Your task to perform on an android device: toggle improve location accuracy Image 0: 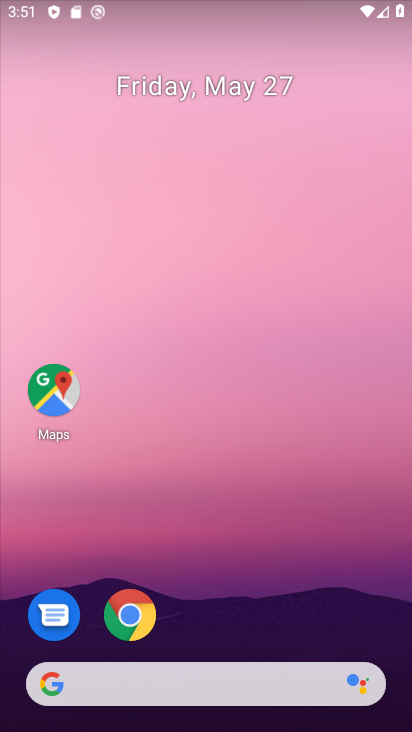
Step 0: drag from (163, 636) to (286, 191)
Your task to perform on an android device: toggle improve location accuracy Image 1: 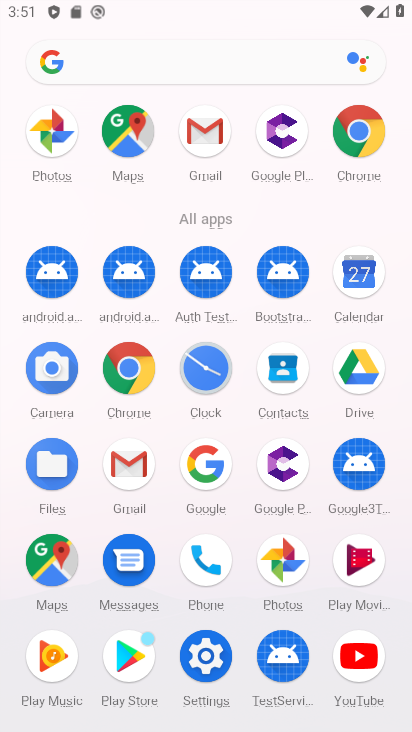
Step 1: drag from (191, 599) to (268, 378)
Your task to perform on an android device: toggle improve location accuracy Image 2: 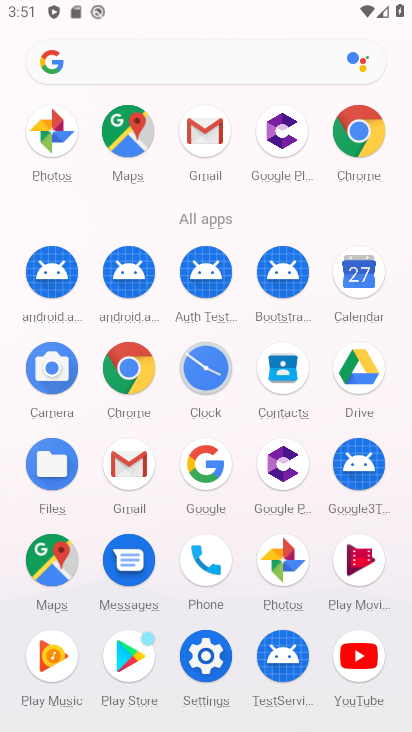
Step 2: click (217, 653)
Your task to perform on an android device: toggle improve location accuracy Image 3: 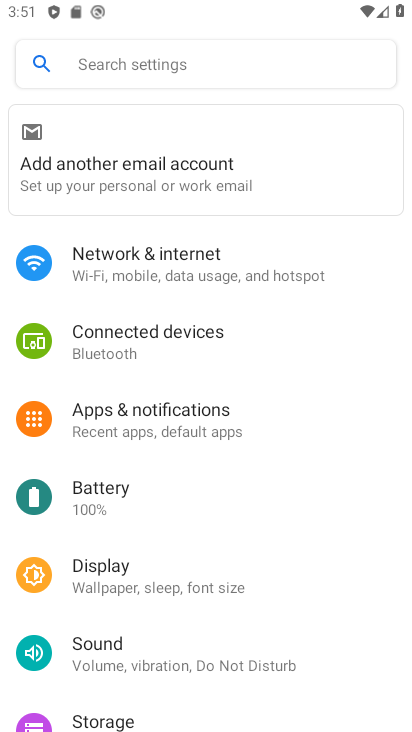
Step 3: drag from (159, 635) to (302, 338)
Your task to perform on an android device: toggle improve location accuracy Image 4: 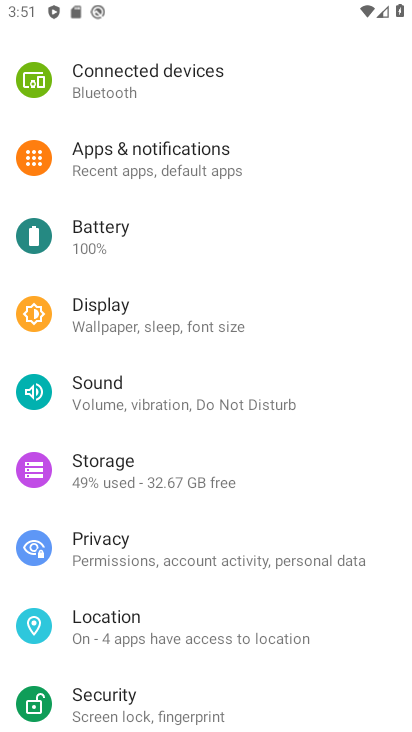
Step 4: click (146, 634)
Your task to perform on an android device: toggle improve location accuracy Image 5: 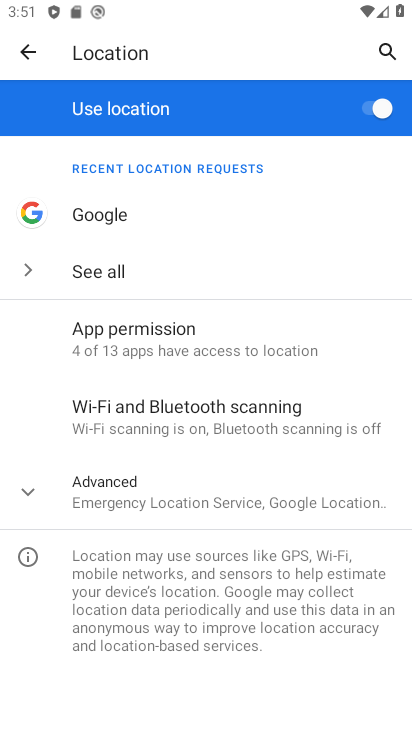
Step 5: click (174, 495)
Your task to perform on an android device: toggle improve location accuracy Image 6: 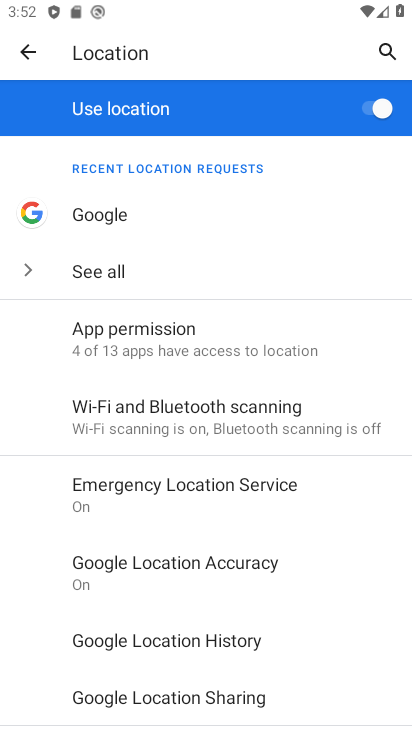
Step 6: click (274, 582)
Your task to perform on an android device: toggle improve location accuracy Image 7: 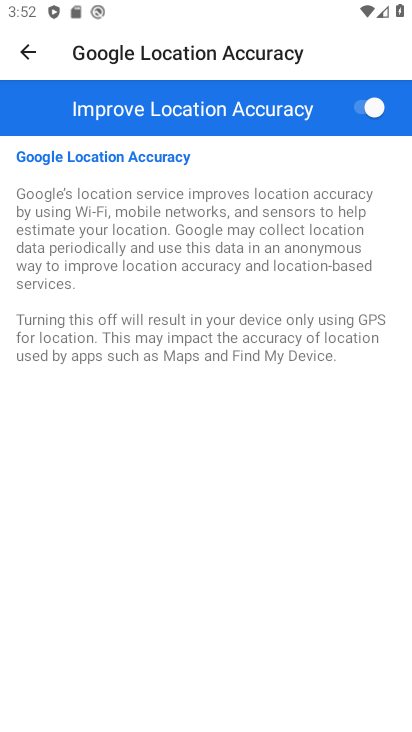
Step 7: click (371, 108)
Your task to perform on an android device: toggle improve location accuracy Image 8: 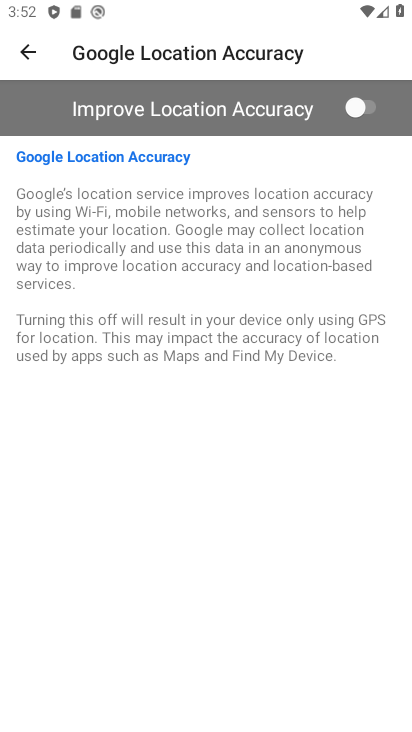
Step 8: task complete